Your task to perform on an android device: open app "Roku - Official Remote Control" Image 0: 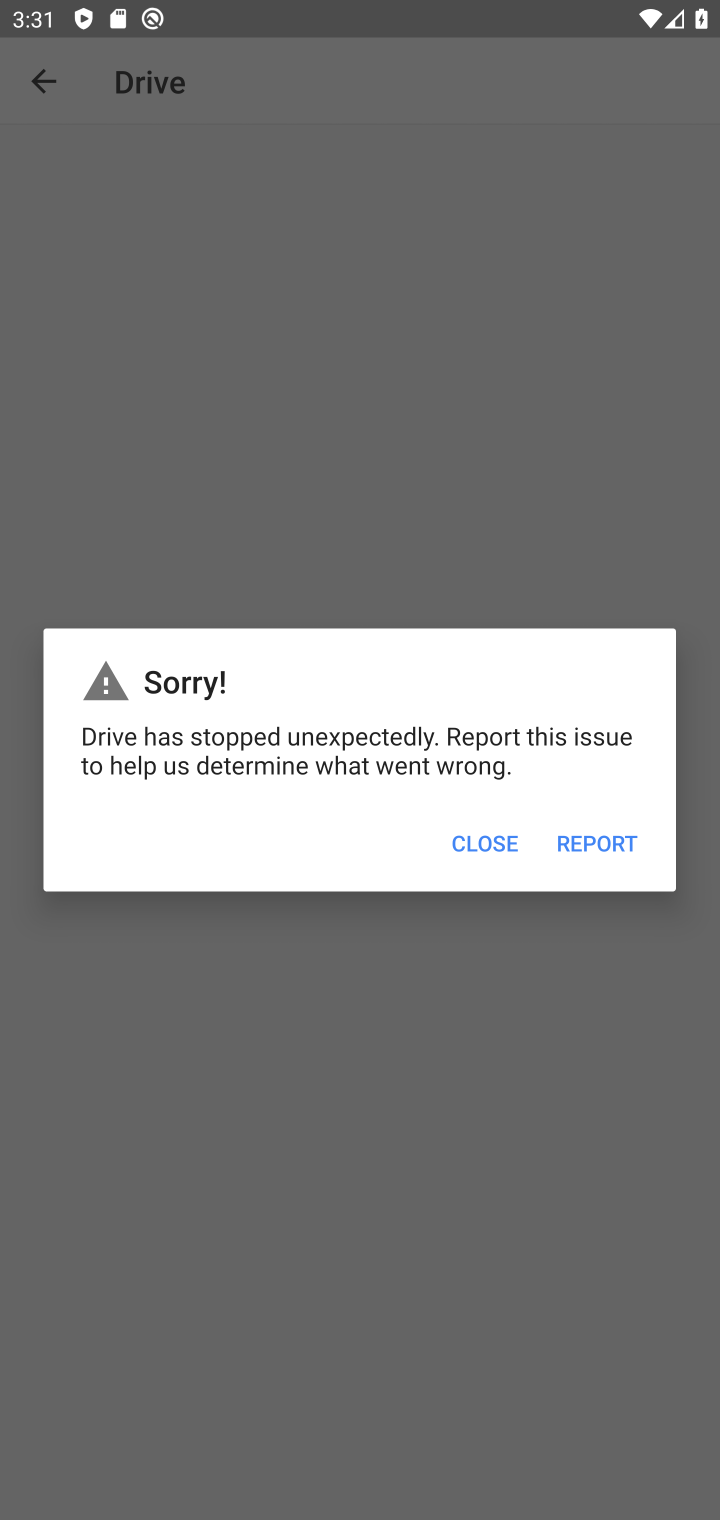
Step 0: press home button
Your task to perform on an android device: open app "Roku - Official Remote Control" Image 1: 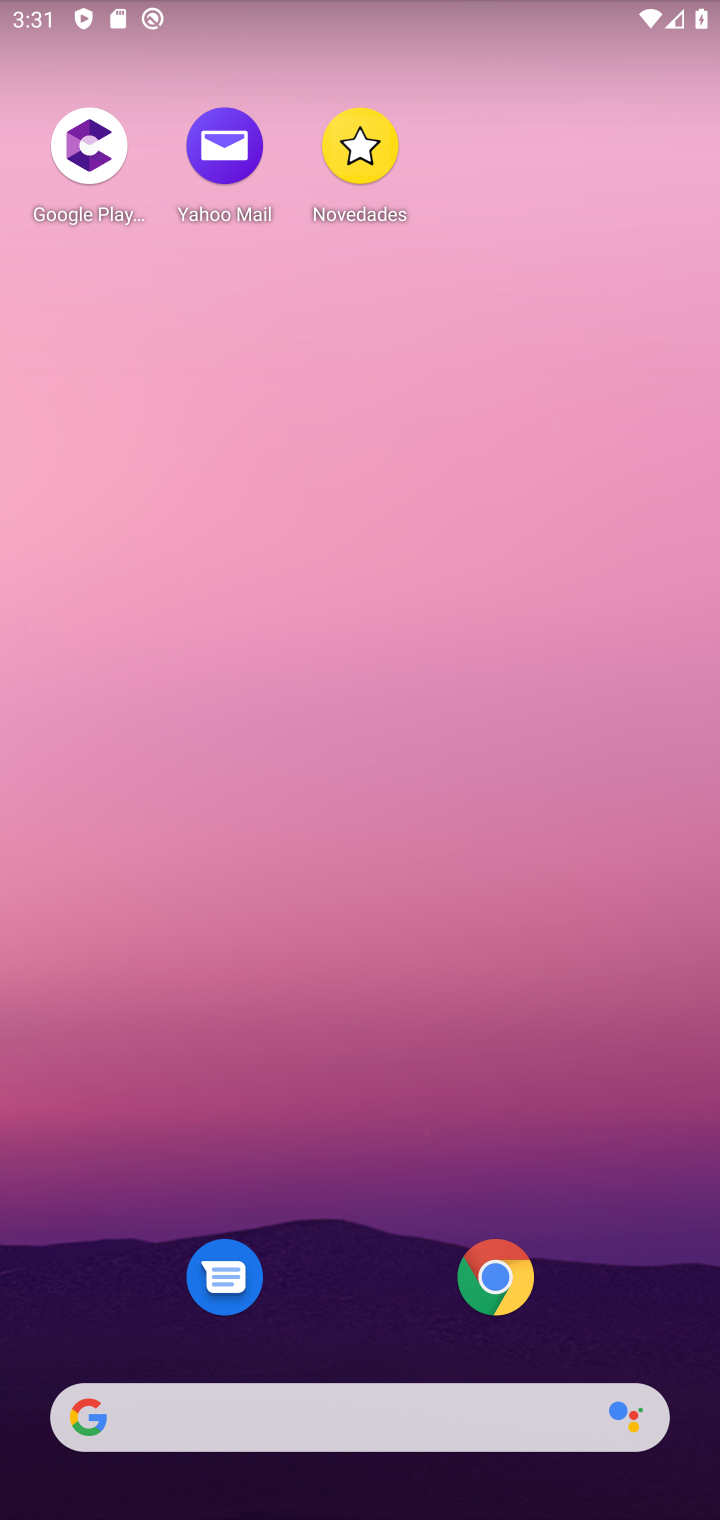
Step 1: drag from (376, 1260) to (611, 132)
Your task to perform on an android device: open app "Roku - Official Remote Control" Image 2: 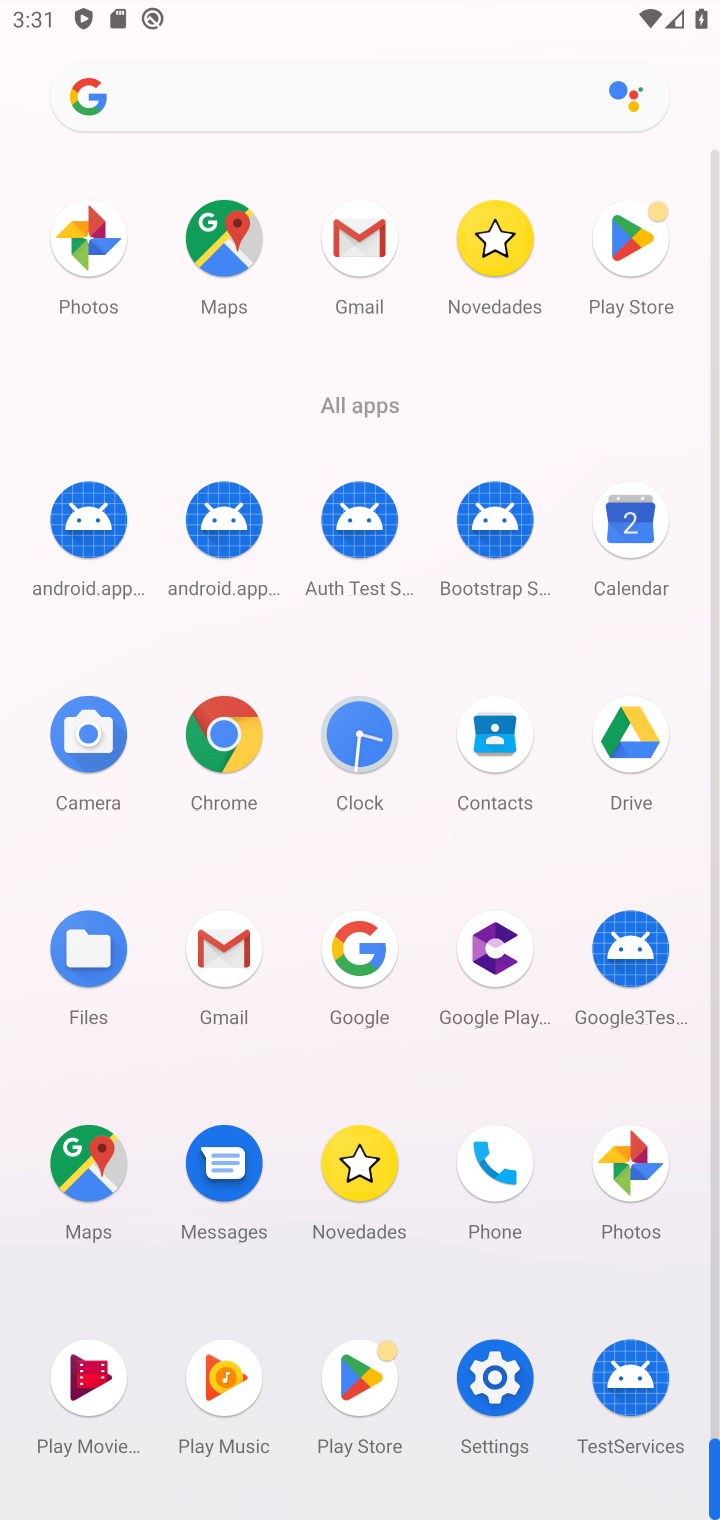
Step 2: drag from (408, 1057) to (458, 212)
Your task to perform on an android device: open app "Roku - Official Remote Control" Image 3: 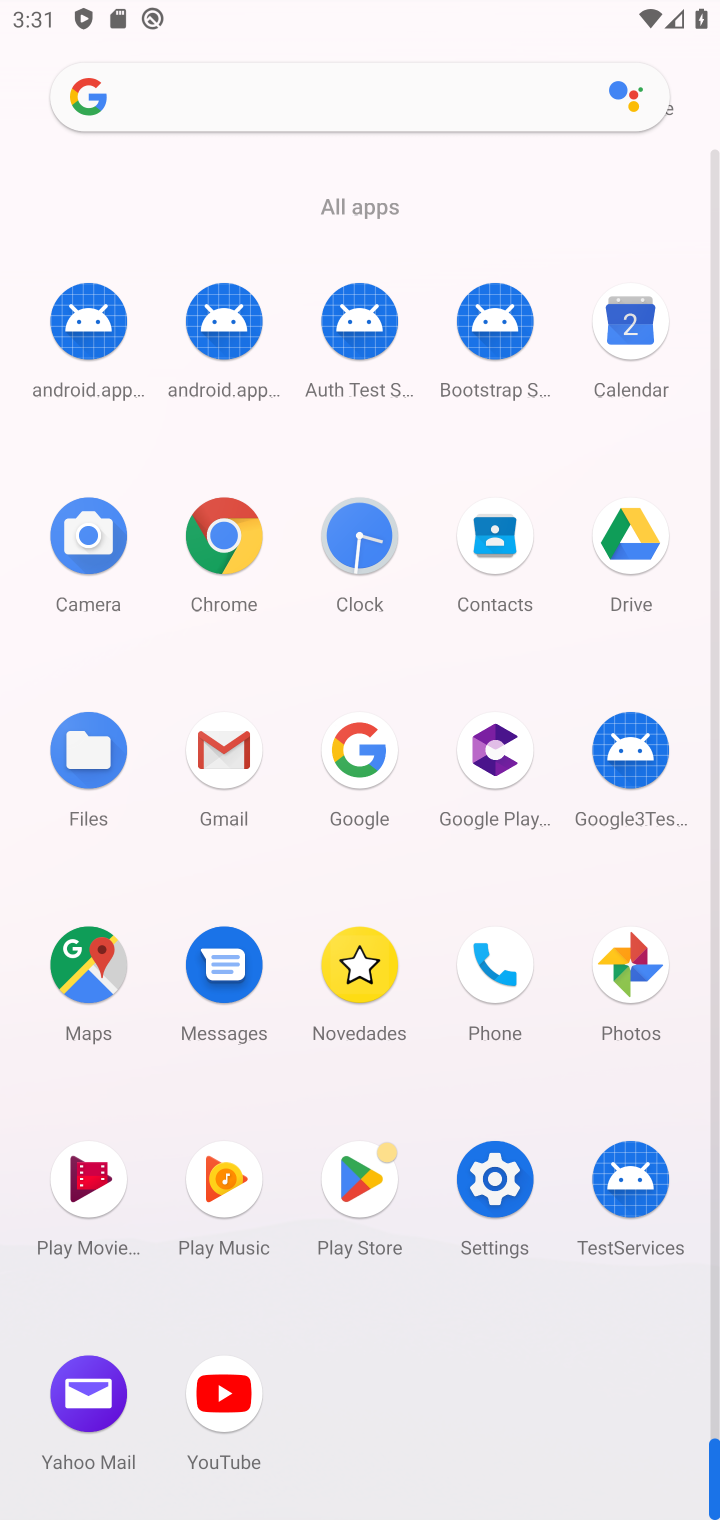
Step 3: click (356, 1168)
Your task to perform on an android device: open app "Roku - Official Remote Control" Image 4: 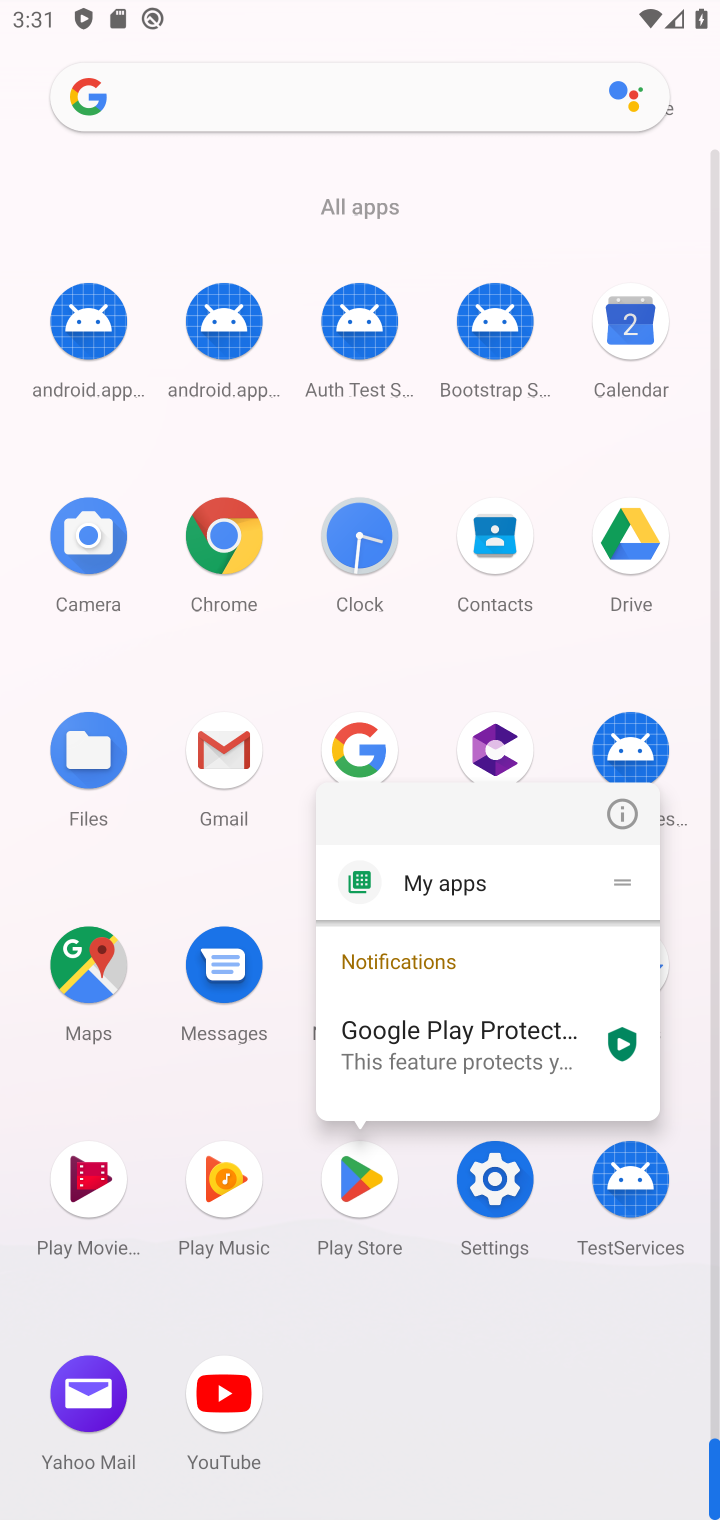
Step 4: click (356, 1164)
Your task to perform on an android device: open app "Roku - Official Remote Control" Image 5: 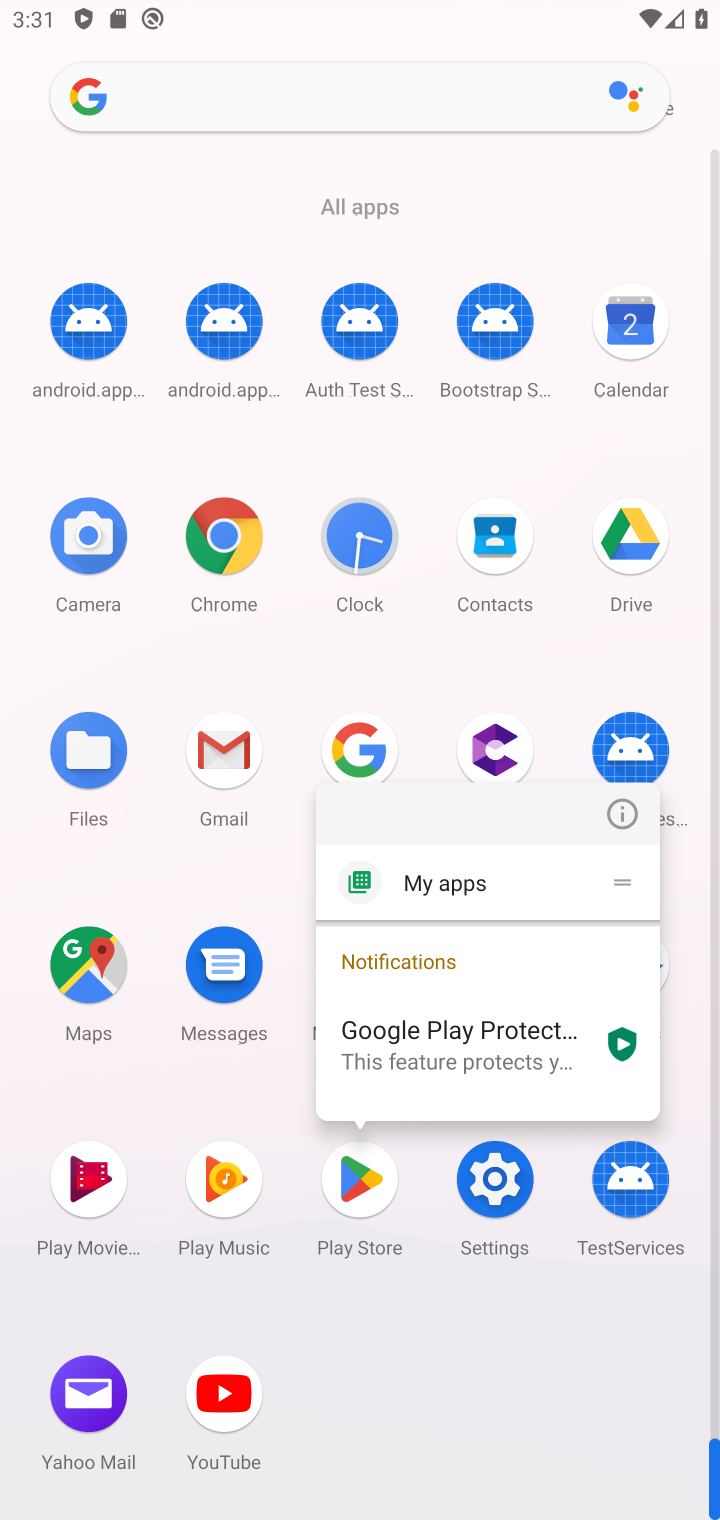
Step 5: click (354, 1189)
Your task to perform on an android device: open app "Roku - Official Remote Control" Image 6: 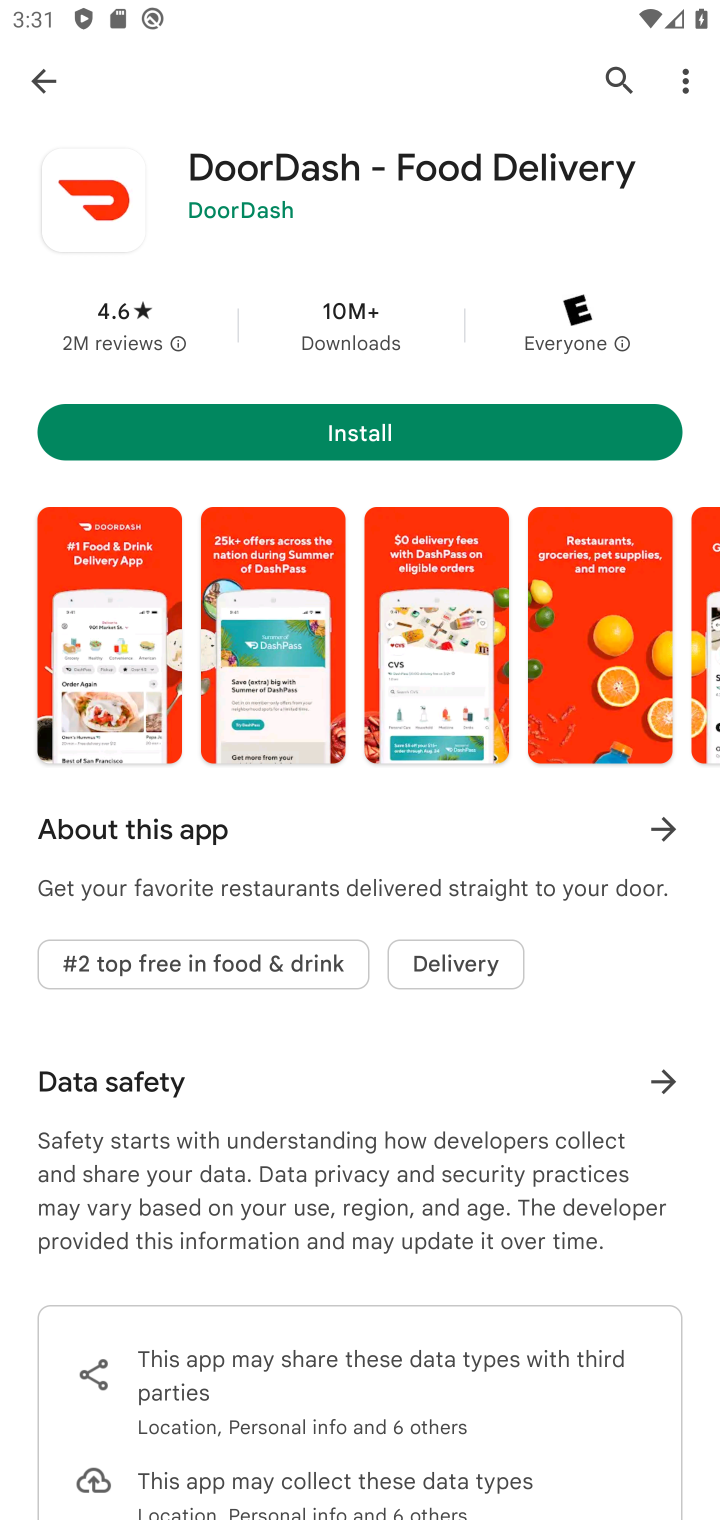
Step 6: click (622, 72)
Your task to perform on an android device: open app "Roku - Official Remote Control" Image 7: 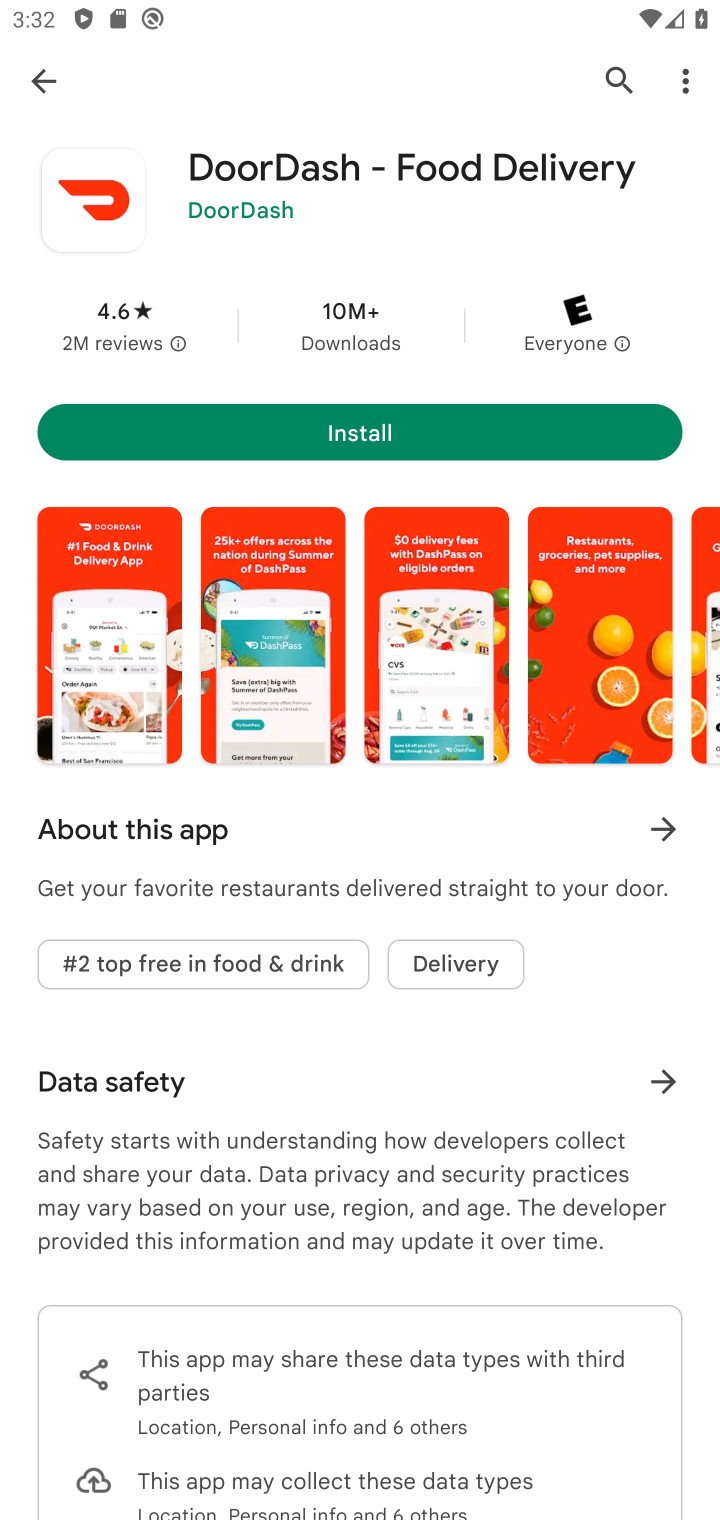
Step 7: click (606, 74)
Your task to perform on an android device: open app "Roku - Official Remote Control" Image 8: 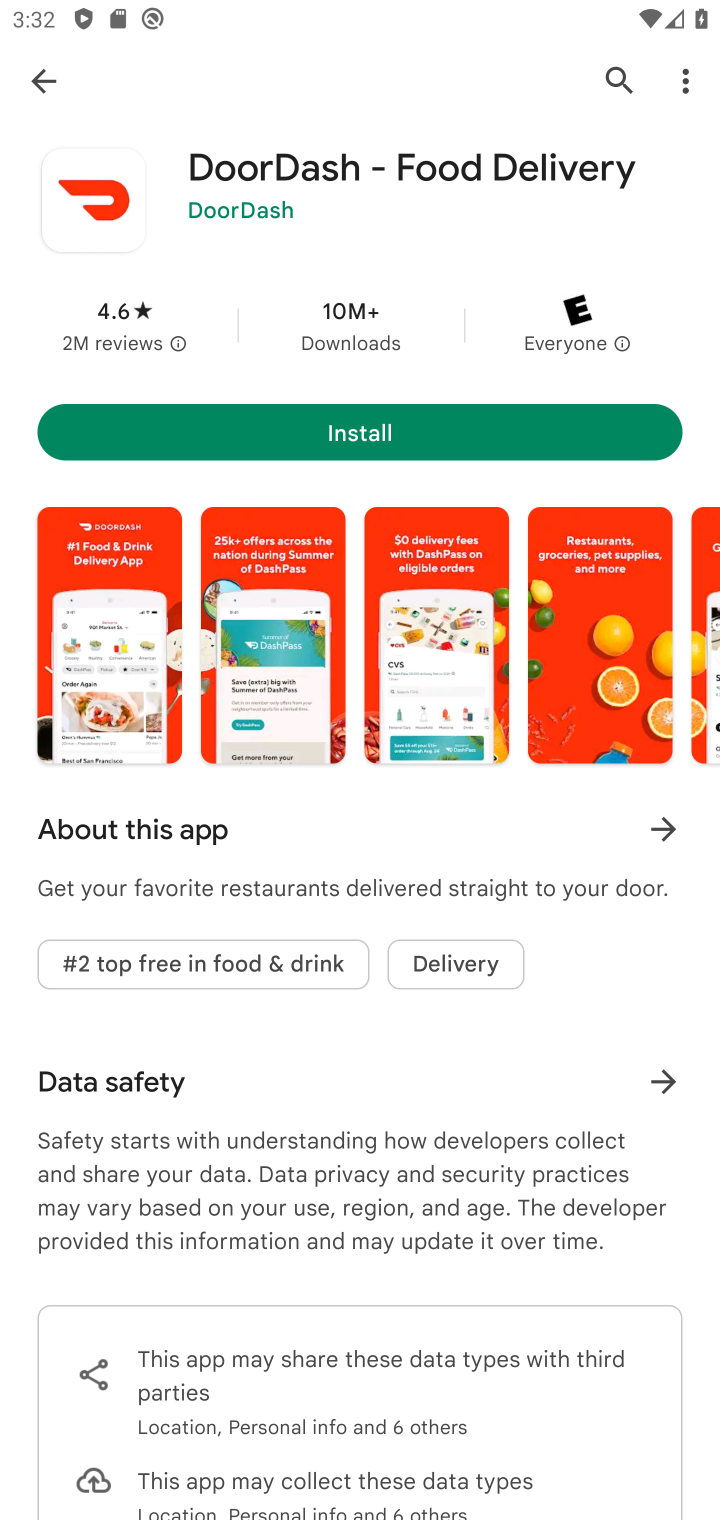
Step 8: press back button
Your task to perform on an android device: open app "Roku - Official Remote Control" Image 9: 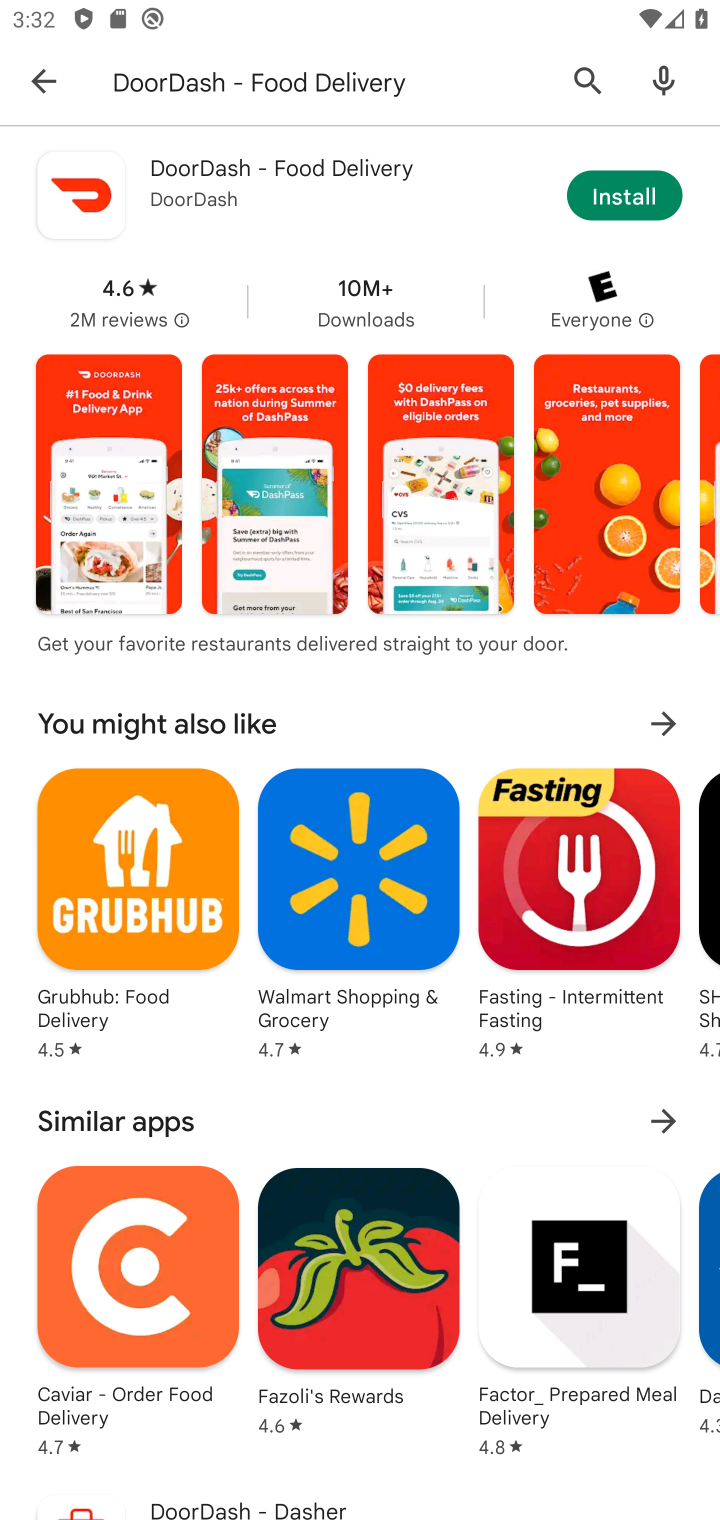
Step 9: click (378, 83)
Your task to perform on an android device: open app "Roku - Official Remote Control" Image 10: 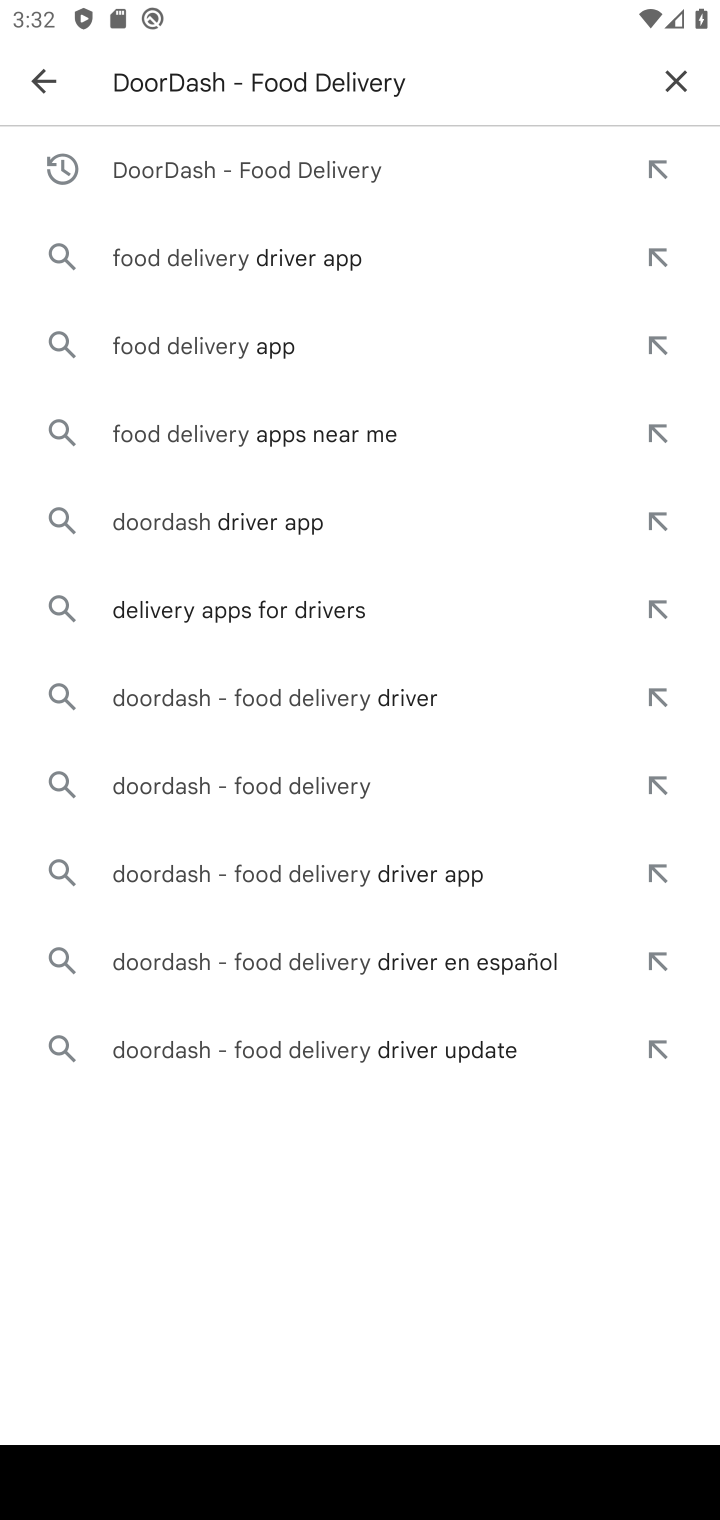
Step 10: click (679, 77)
Your task to perform on an android device: open app "Roku - Official Remote Control" Image 11: 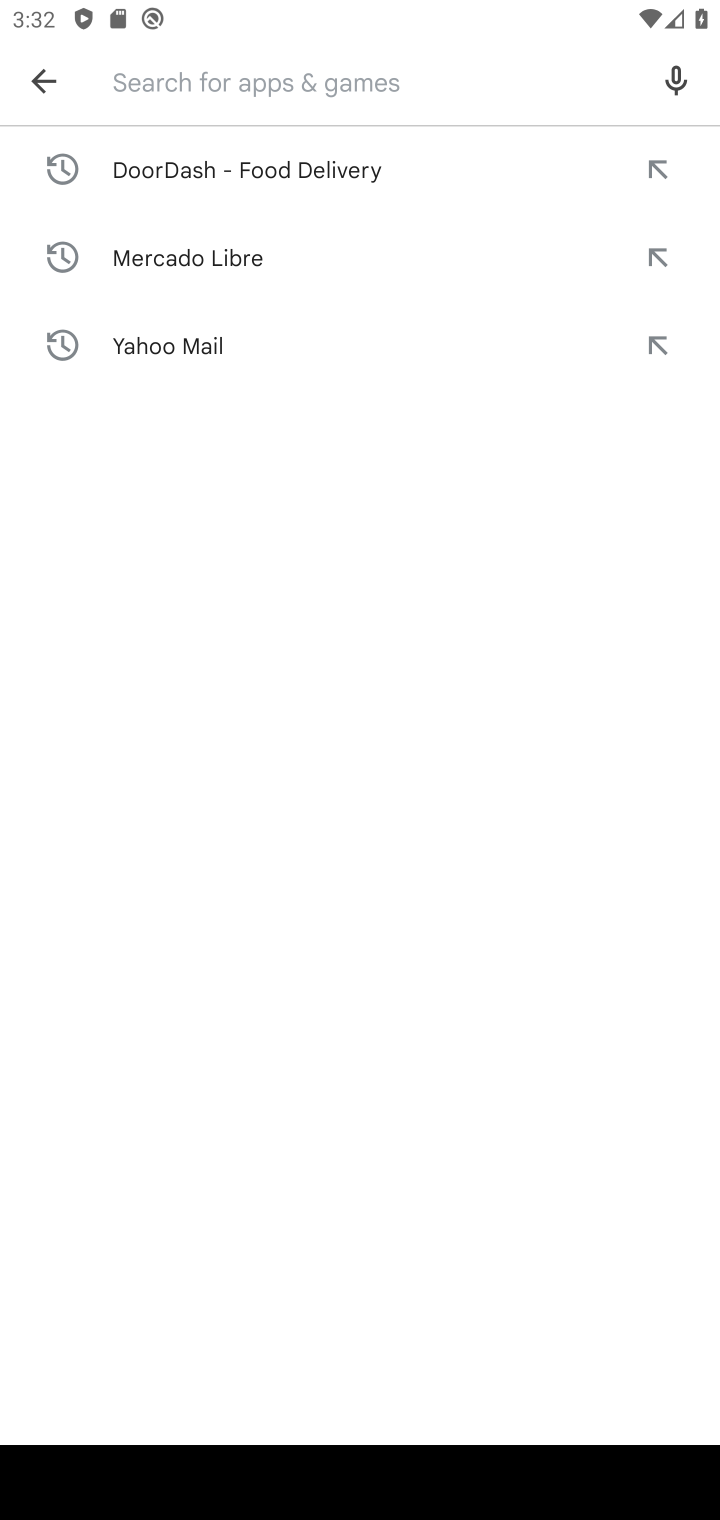
Step 11: type "Roku - Official Remote Control"
Your task to perform on an android device: open app "Roku - Official Remote Control" Image 12: 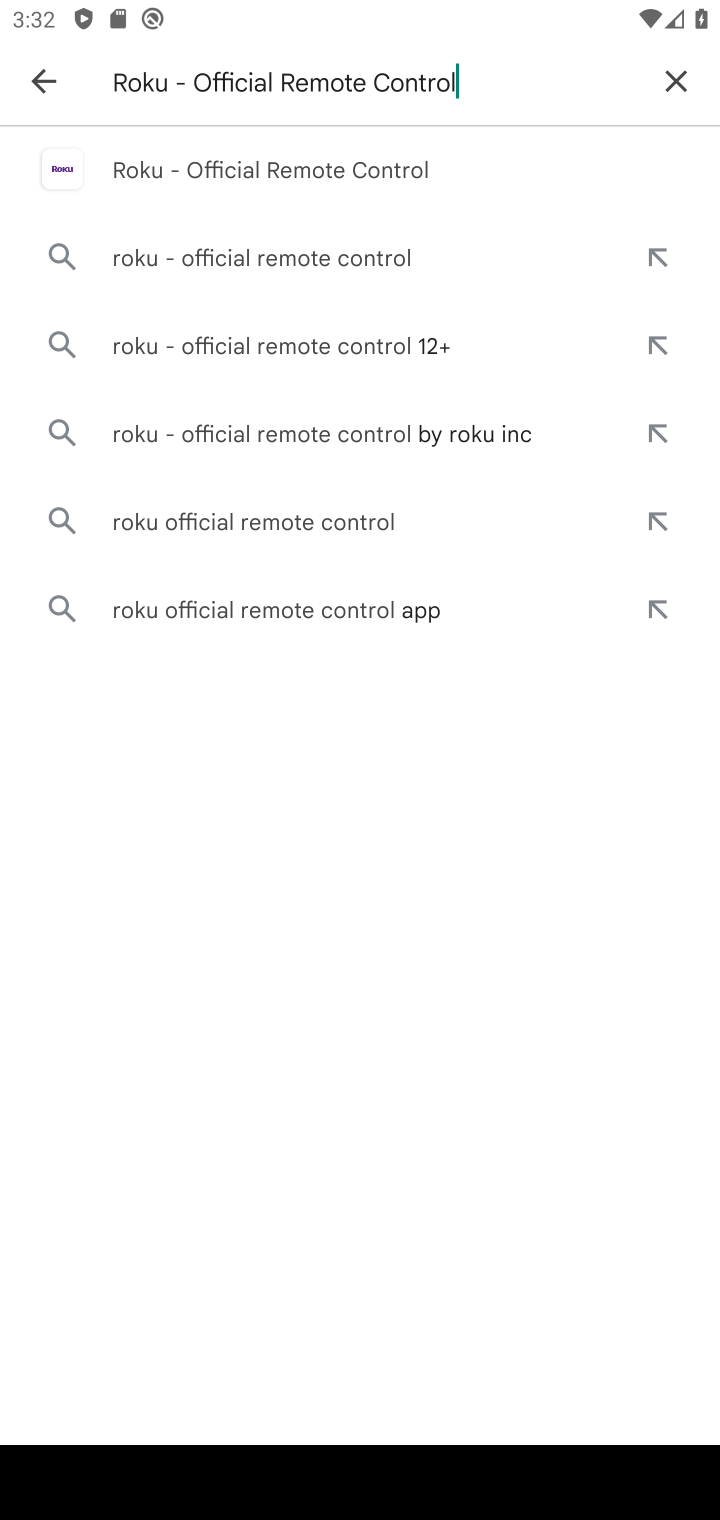
Step 12: click (320, 156)
Your task to perform on an android device: open app "Roku - Official Remote Control" Image 13: 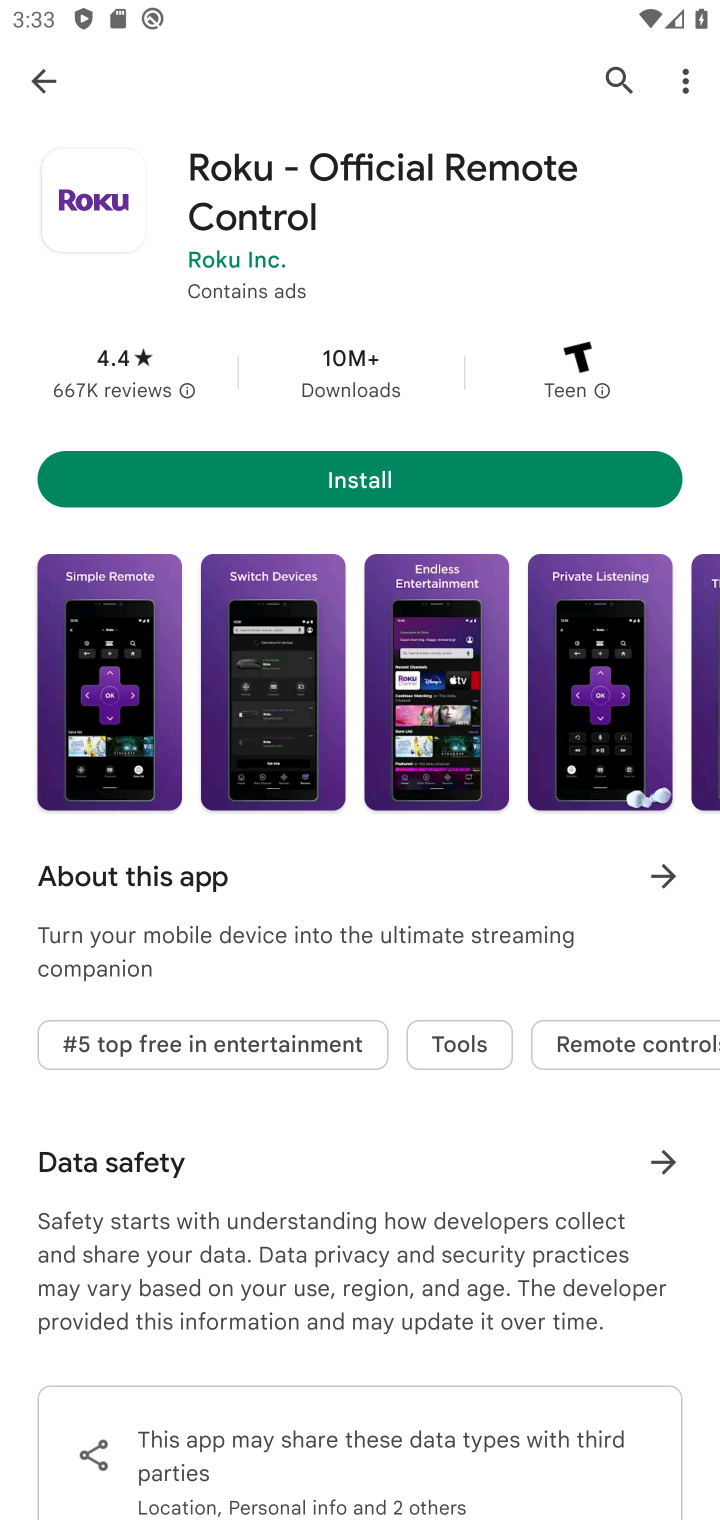
Step 13: task complete